Your task to perform on an android device: What's on my calendar tomorrow? Image 0: 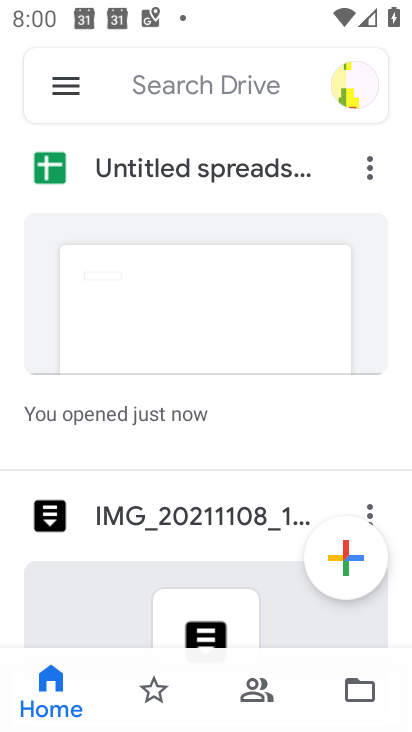
Step 0: press home button
Your task to perform on an android device: What's on my calendar tomorrow? Image 1: 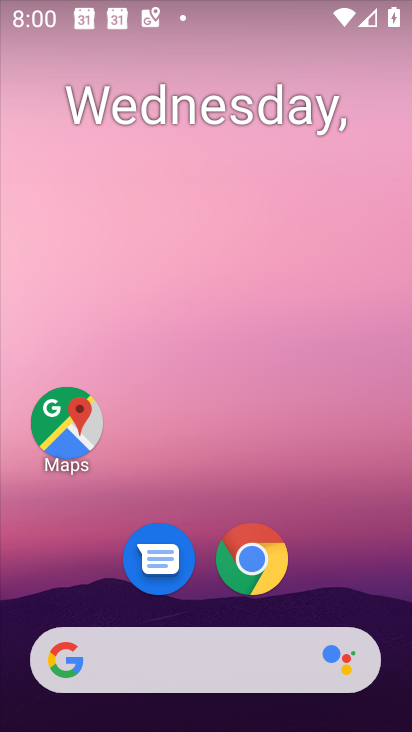
Step 1: drag from (356, 460) to (322, 122)
Your task to perform on an android device: What's on my calendar tomorrow? Image 2: 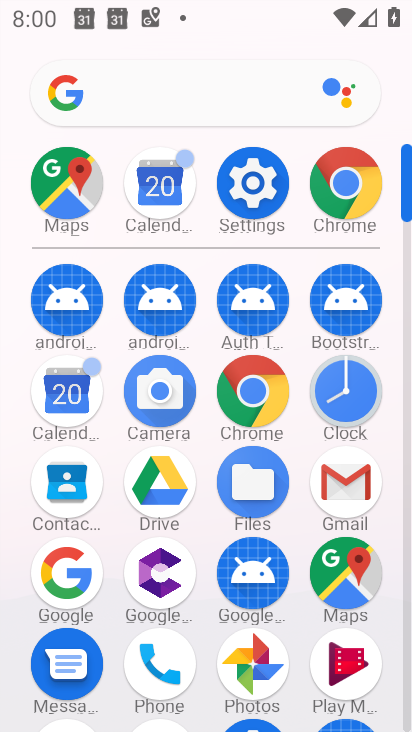
Step 2: click (62, 398)
Your task to perform on an android device: What's on my calendar tomorrow? Image 3: 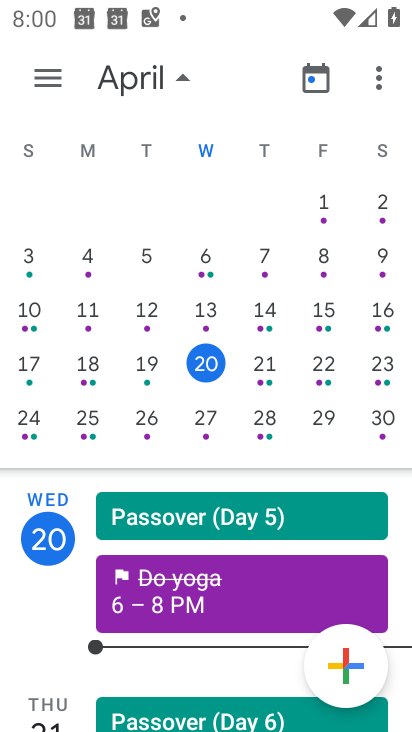
Step 3: click (266, 369)
Your task to perform on an android device: What's on my calendar tomorrow? Image 4: 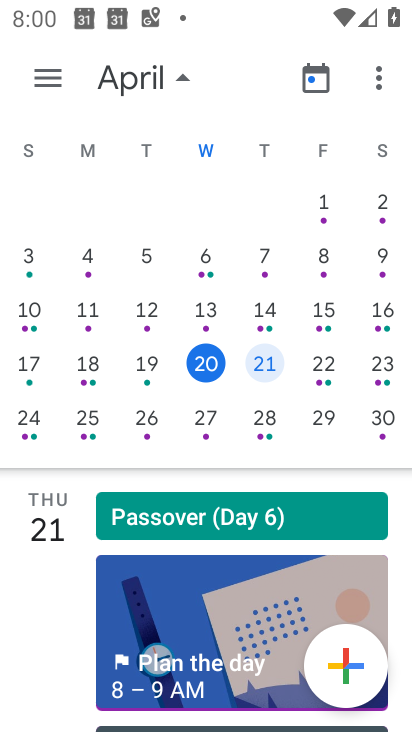
Step 4: task complete